Your task to perform on an android device: toggle location history Image 0: 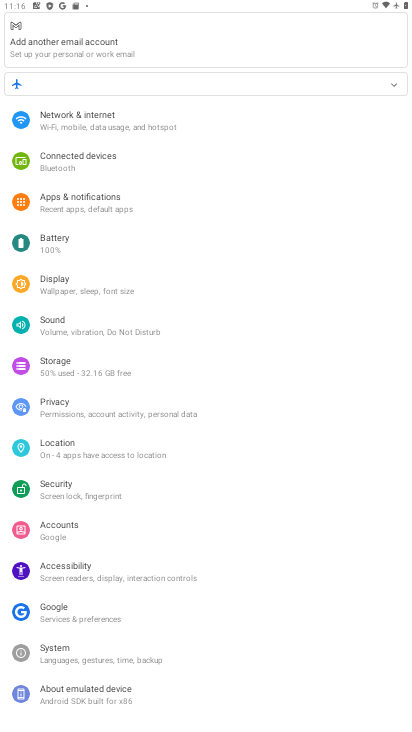
Step 0: click (208, 453)
Your task to perform on an android device: toggle location history Image 1: 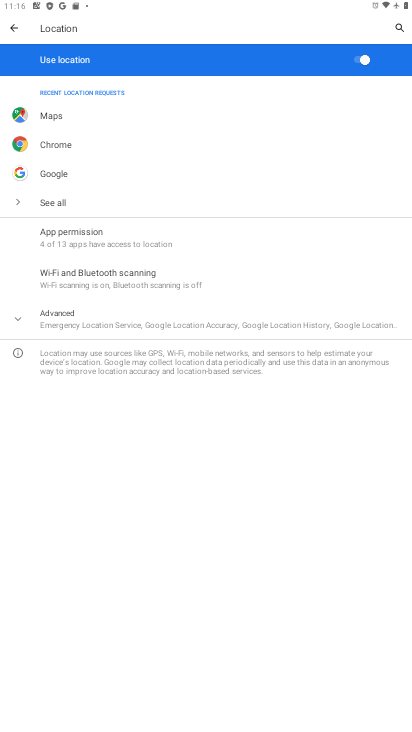
Step 1: task complete